Your task to perform on an android device: Open ESPN.com Image 0: 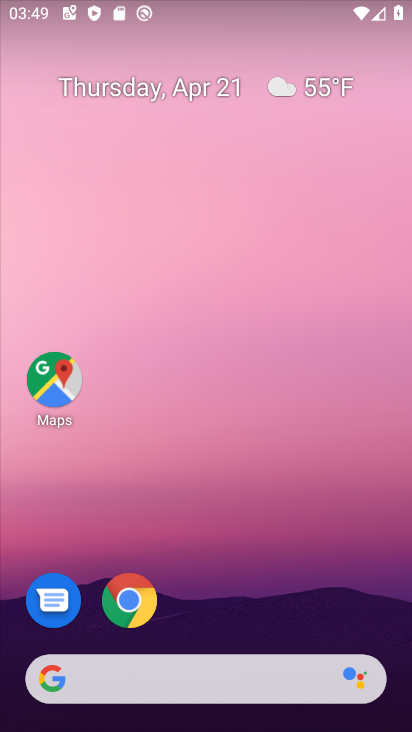
Step 0: click (150, 595)
Your task to perform on an android device: Open ESPN.com Image 1: 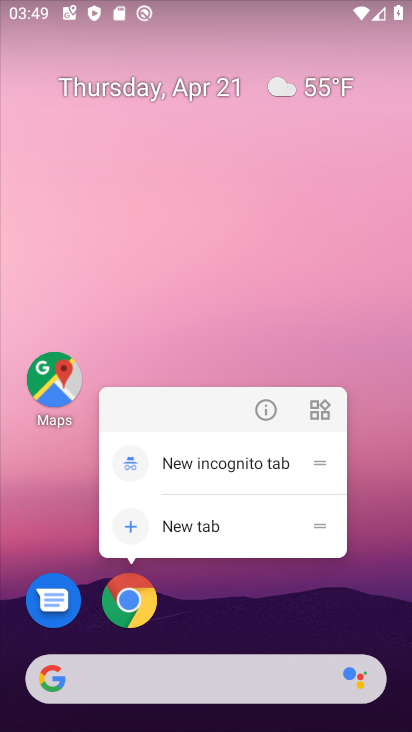
Step 1: click (147, 590)
Your task to perform on an android device: Open ESPN.com Image 2: 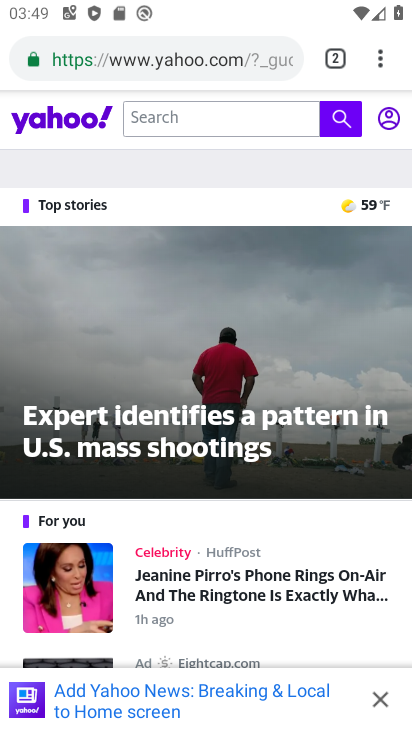
Step 2: click (202, 56)
Your task to perform on an android device: Open ESPN.com Image 3: 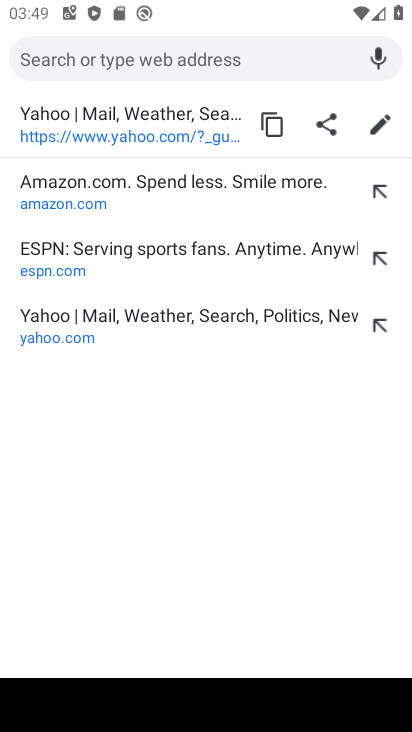
Step 3: type "ESPN.com"
Your task to perform on an android device: Open ESPN.com Image 4: 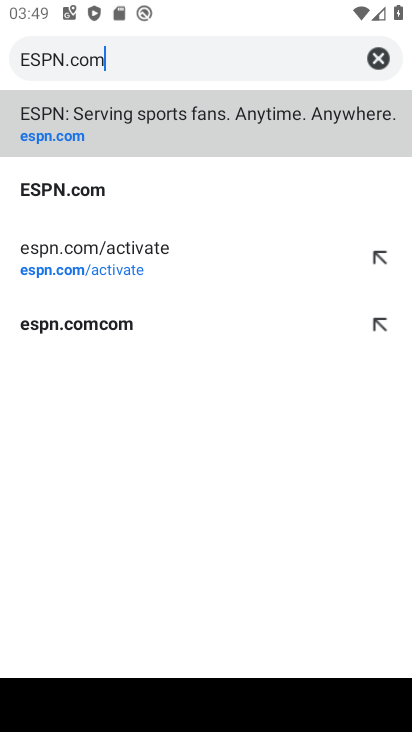
Step 4: click (51, 130)
Your task to perform on an android device: Open ESPN.com Image 5: 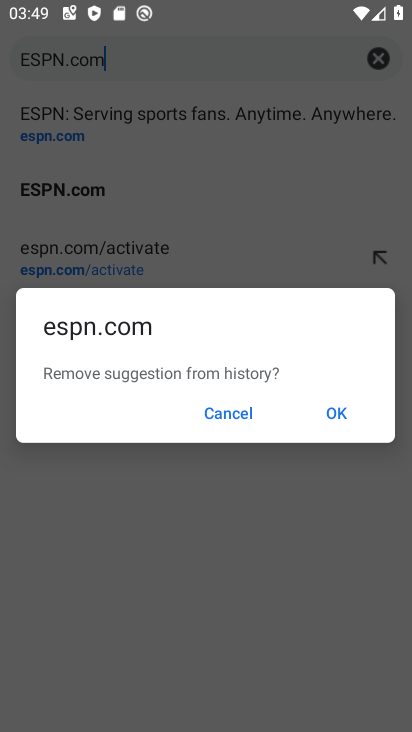
Step 5: click (238, 408)
Your task to perform on an android device: Open ESPN.com Image 6: 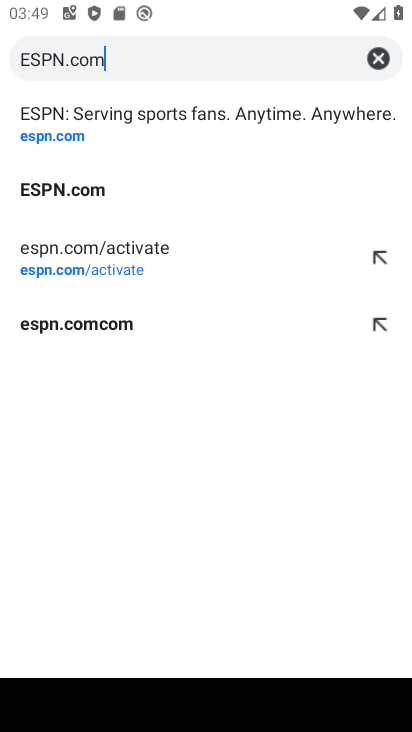
Step 6: click (83, 140)
Your task to perform on an android device: Open ESPN.com Image 7: 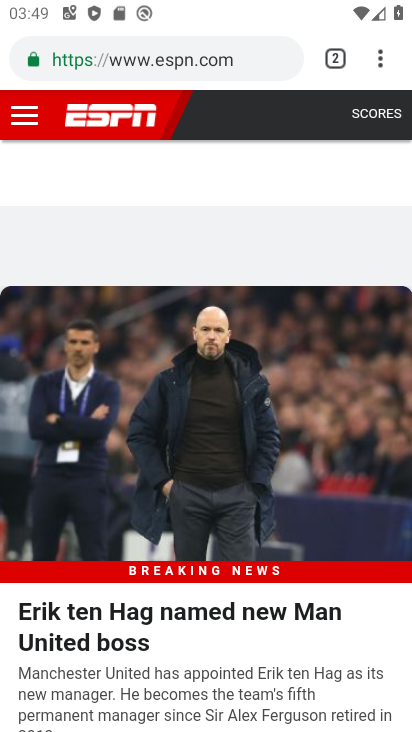
Step 7: task complete